Your task to perform on an android device: turn on location history Image 0: 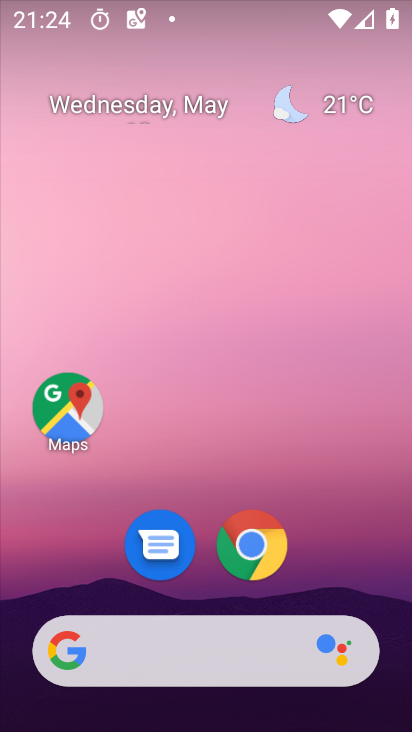
Step 0: drag from (343, 578) to (329, 4)
Your task to perform on an android device: turn on location history Image 1: 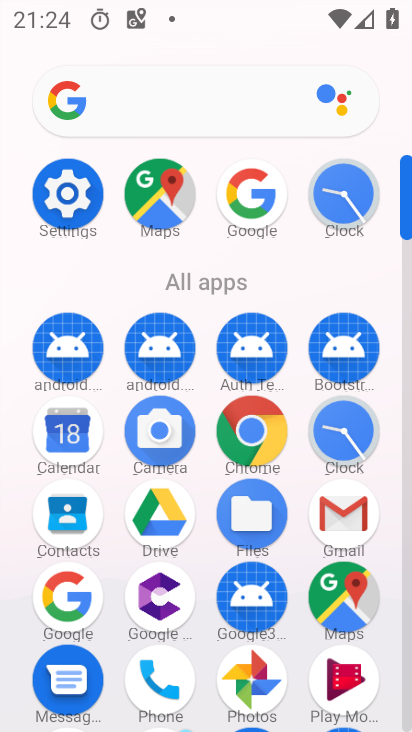
Step 1: click (60, 221)
Your task to perform on an android device: turn on location history Image 2: 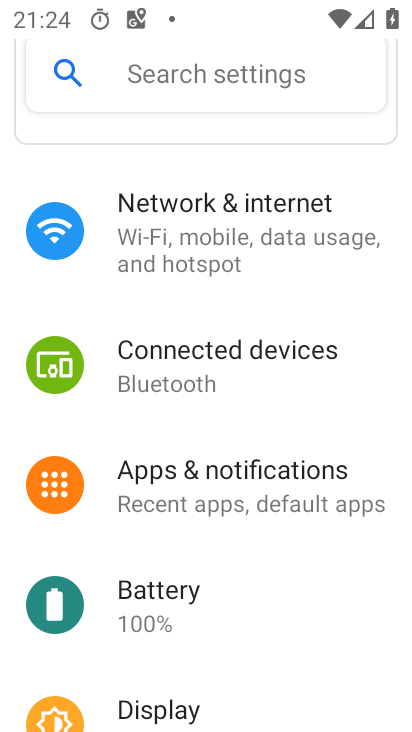
Step 2: drag from (236, 602) to (247, 290)
Your task to perform on an android device: turn on location history Image 3: 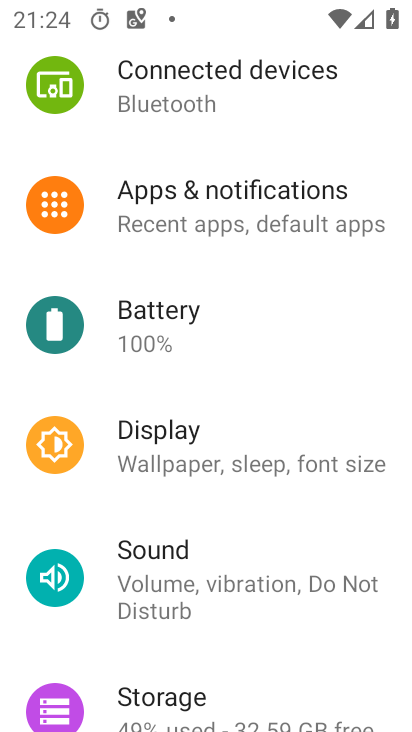
Step 3: drag from (247, 634) to (235, 256)
Your task to perform on an android device: turn on location history Image 4: 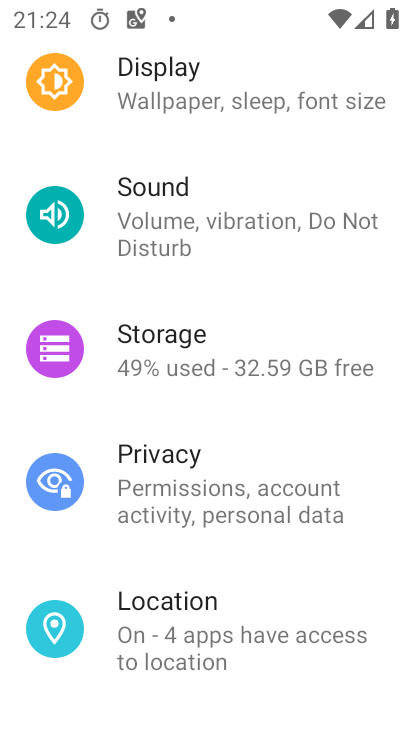
Step 4: click (245, 644)
Your task to perform on an android device: turn on location history Image 5: 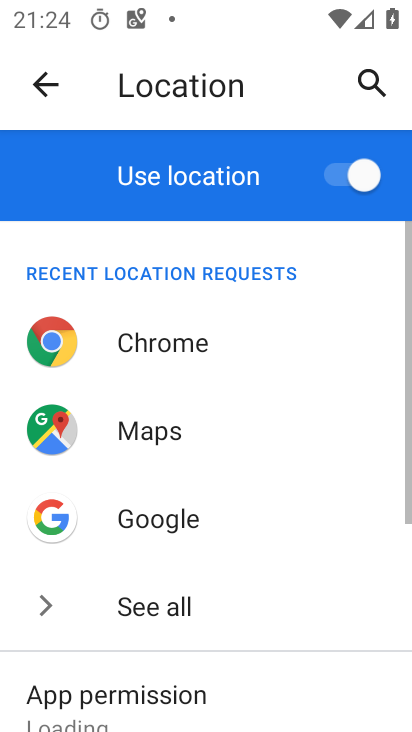
Step 5: drag from (222, 665) to (261, 231)
Your task to perform on an android device: turn on location history Image 6: 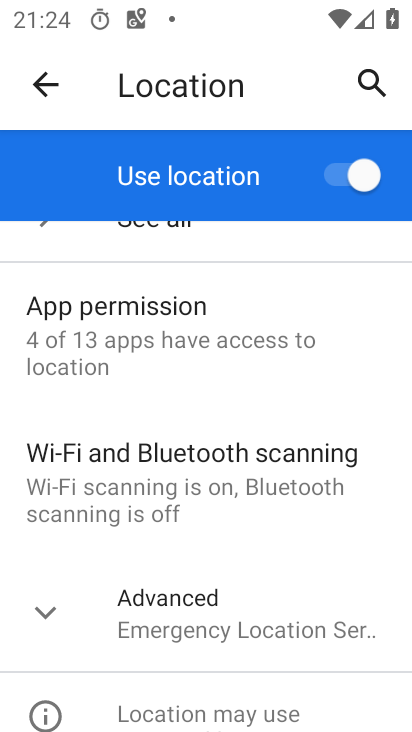
Step 6: click (214, 618)
Your task to perform on an android device: turn on location history Image 7: 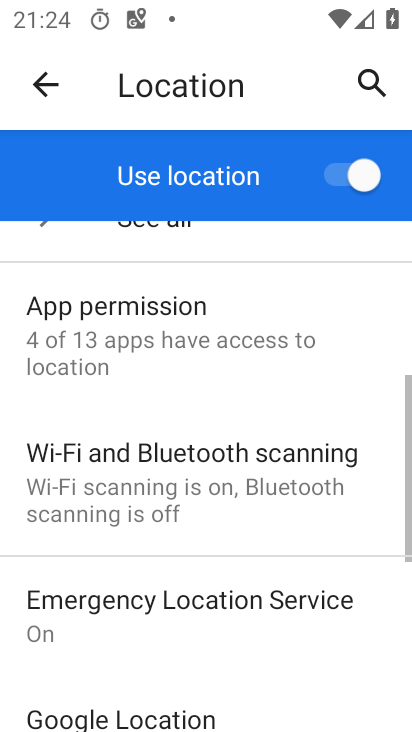
Step 7: drag from (226, 650) to (242, 252)
Your task to perform on an android device: turn on location history Image 8: 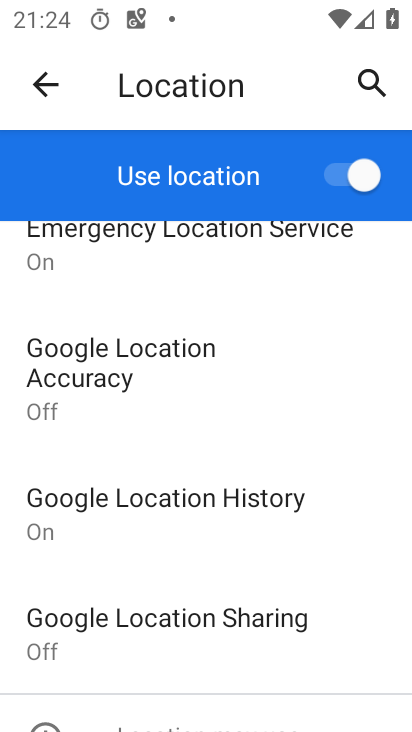
Step 8: click (168, 509)
Your task to perform on an android device: turn on location history Image 9: 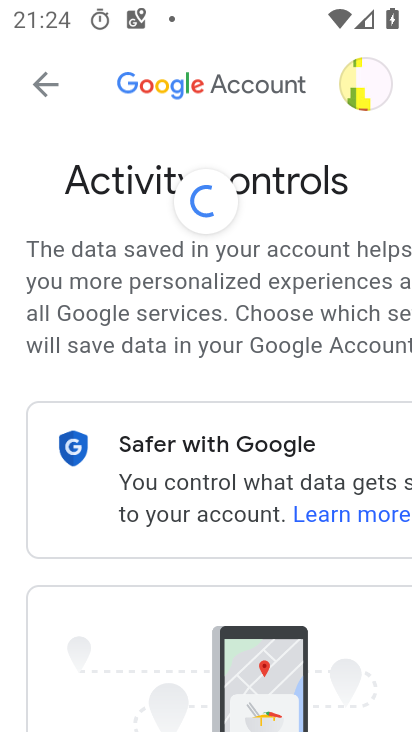
Step 9: task complete